Your task to perform on an android device: clear history in the chrome app Image 0: 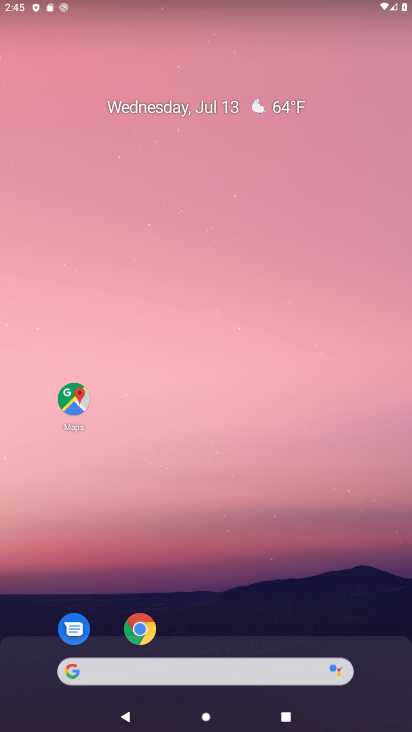
Step 0: drag from (251, 631) to (186, 105)
Your task to perform on an android device: clear history in the chrome app Image 1: 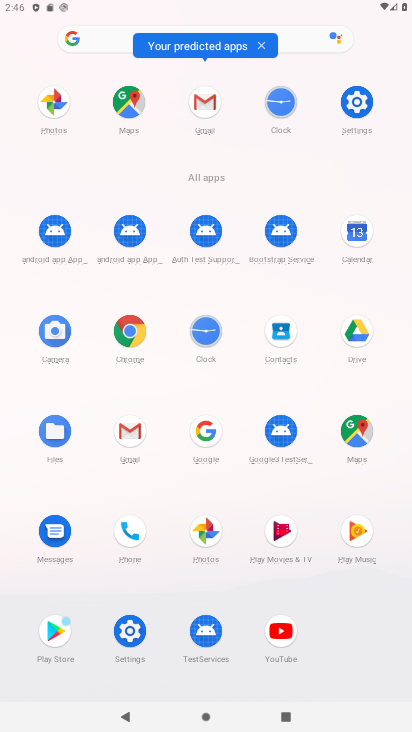
Step 1: click (133, 340)
Your task to perform on an android device: clear history in the chrome app Image 2: 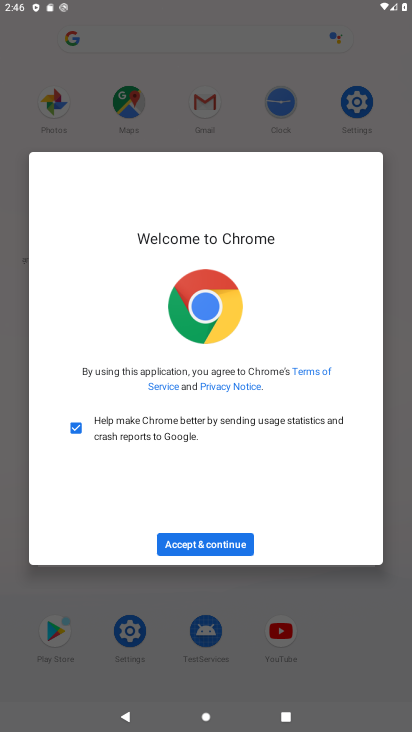
Step 2: click (218, 539)
Your task to perform on an android device: clear history in the chrome app Image 3: 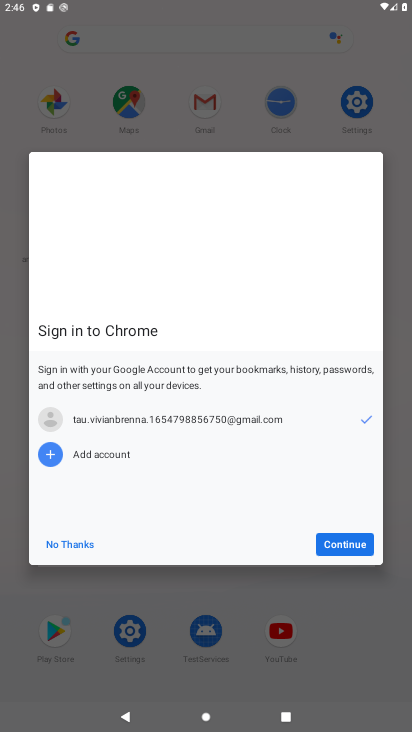
Step 3: click (350, 540)
Your task to perform on an android device: clear history in the chrome app Image 4: 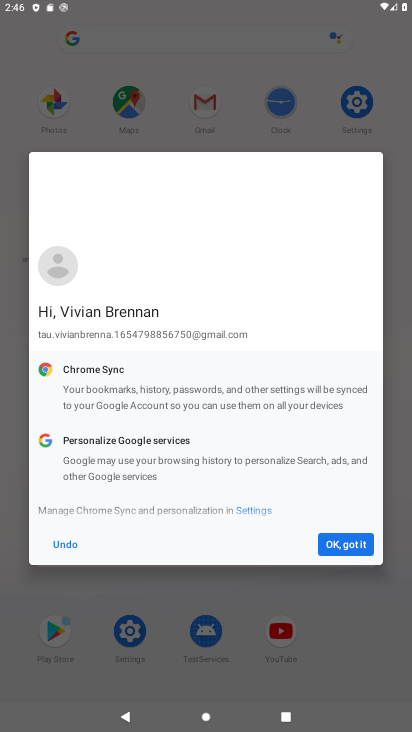
Step 4: click (351, 543)
Your task to perform on an android device: clear history in the chrome app Image 5: 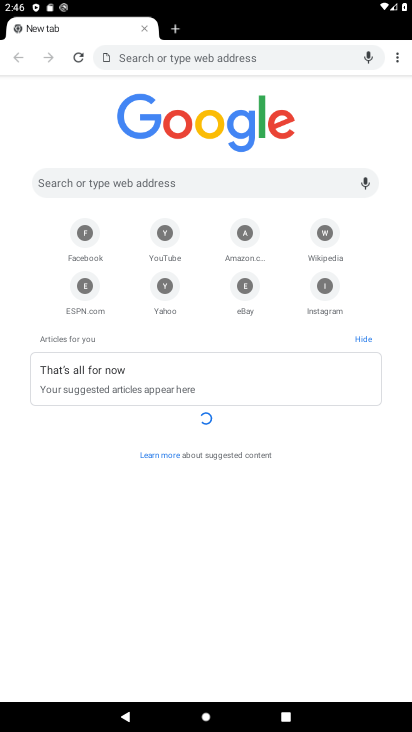
Step 5: click (401, 52)
Your task to perform on an android device: clear history in the chrome app Image 6: 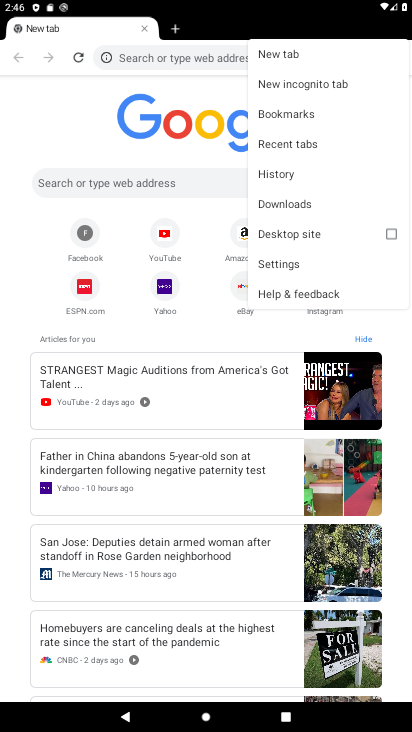
Step 6: click (278, 173)
Your task to perform on an android device: clear history in the chrome app Image 7: 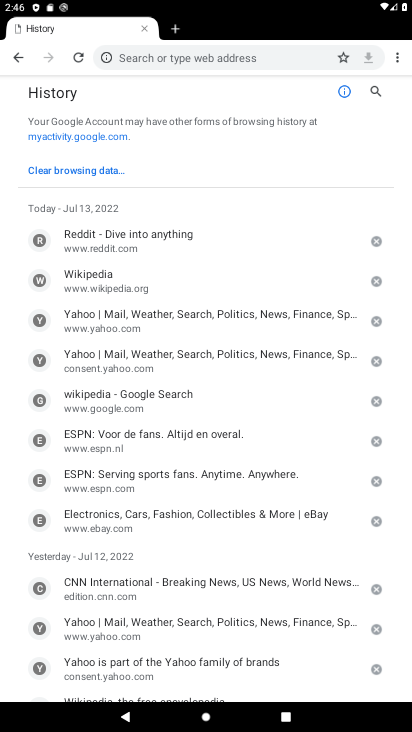
Step 7: click (399, 58)
Your task to perform on an android device: clear history in the chrome app Image 8: 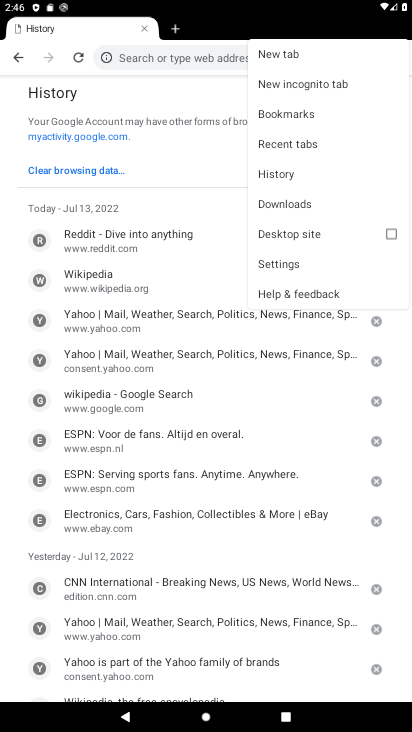
Step 8: click (289, 169)
Your task to perform on an android device: clear history in the chrome app Image 9: 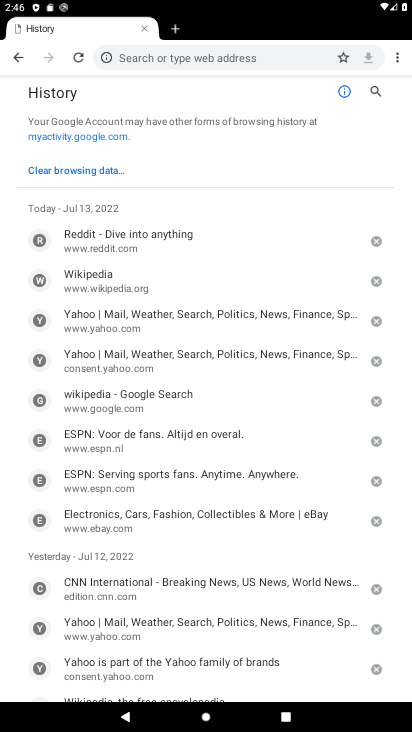
Step 9: click (77, 171)
Your task to perform on an android device: clear history in the chrome app Image 10: 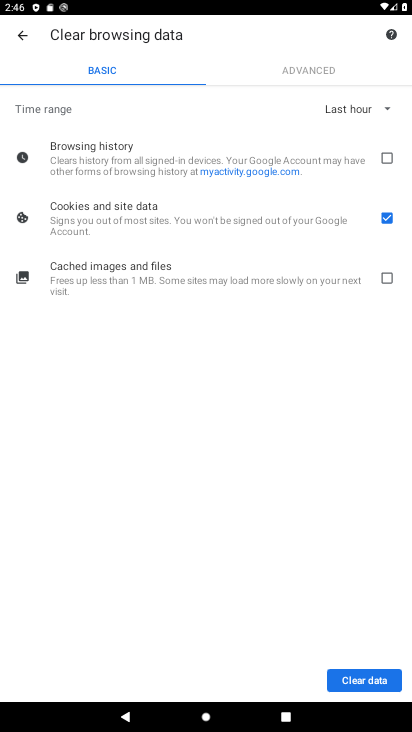
Step 10: click (387, 219)
Your task to perform on an android device: clear history in the chrome app Image 11: 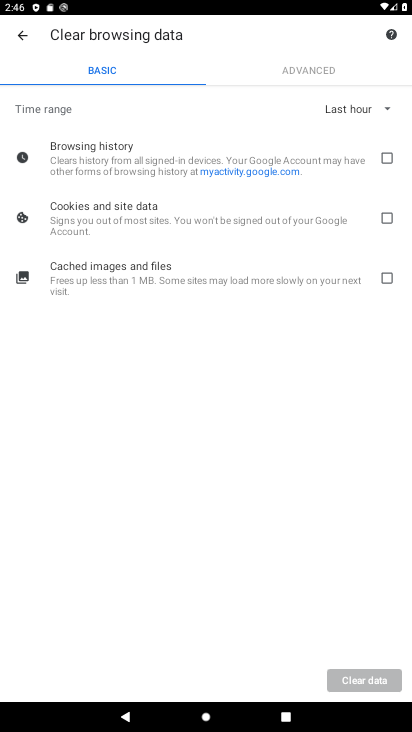
Step 11: click (386, 158)
Your task to perform on an android device: clear history in the chrome app Image 12: 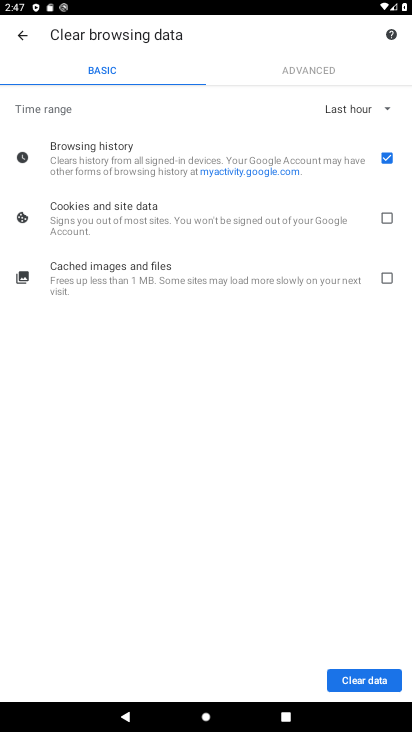
Step 12: click (371, 677)
Your task to perform on an android device: clear history in the chrome app Image 13: 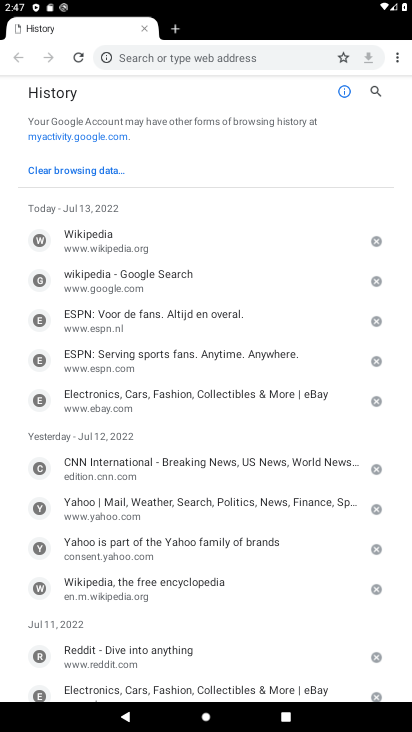
Step 13: task complete